Your task to perform on an android device: Set the phone to "Do not disturb". Image 0: 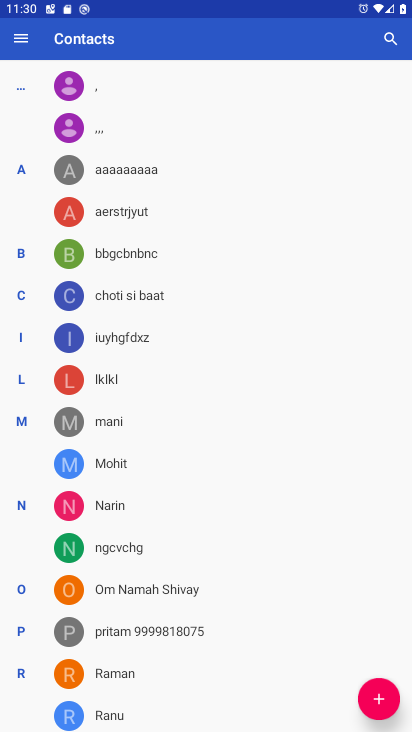
Step 0: press home button
Your task to perform on an android device: Set the phone to "Do not disturb". Image 1: 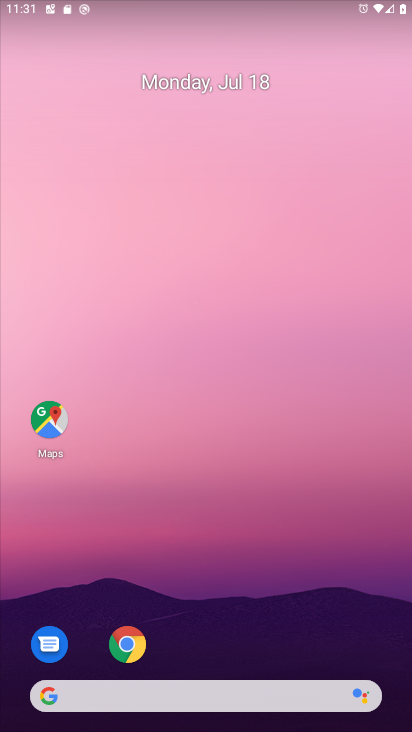
Step 1: drag from (225, 657) to (251, 119)
Your task to perform on an android device: Set the phone to "Do not disturb". Image 2: 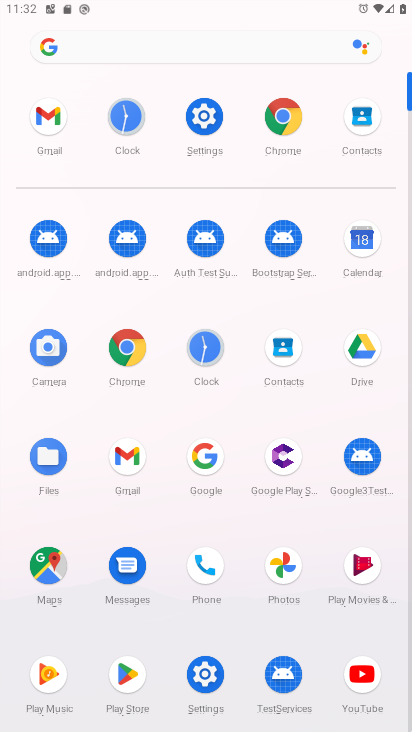
Step 2: click (208, 145)
Your task to perform on an android device: Set the phone to "Do not disturb". Image 3: 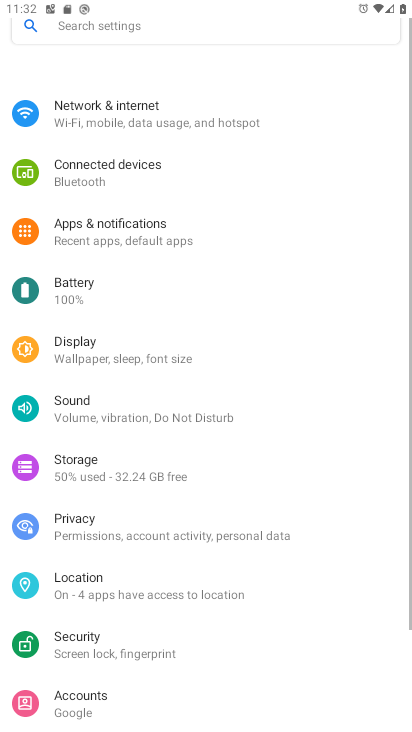
Step 3: task complete